Your task to perform on an android device: check android version Image 0: 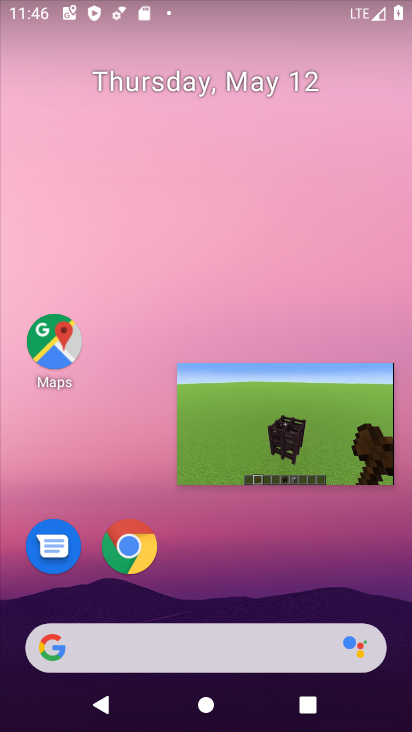
Step 0: click (359, 389)
Your task to perform on an android device: check android version Image 1: 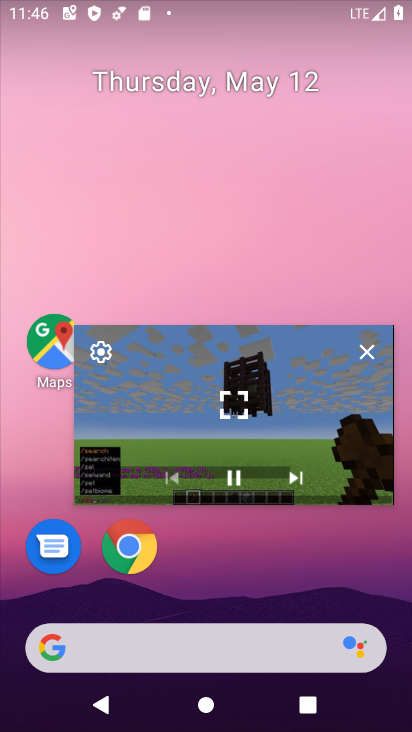
Step 1: click (369, 351)
Your task to perform on an android device: check android version Image 2: 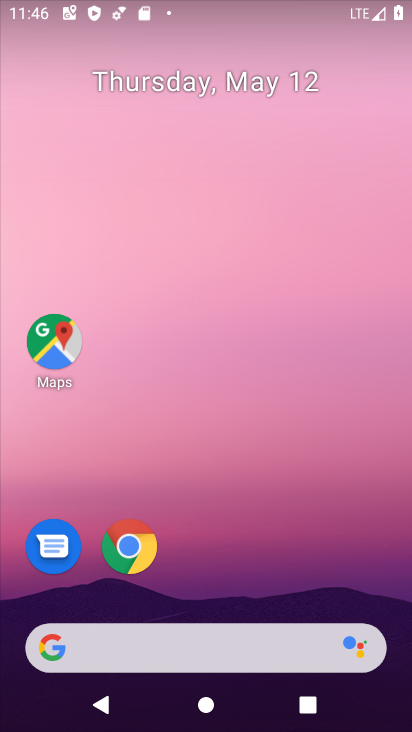
Step 2: drag from (246, 575) to (246, 98)
Your task to perform on an android device: check android version Image 3: 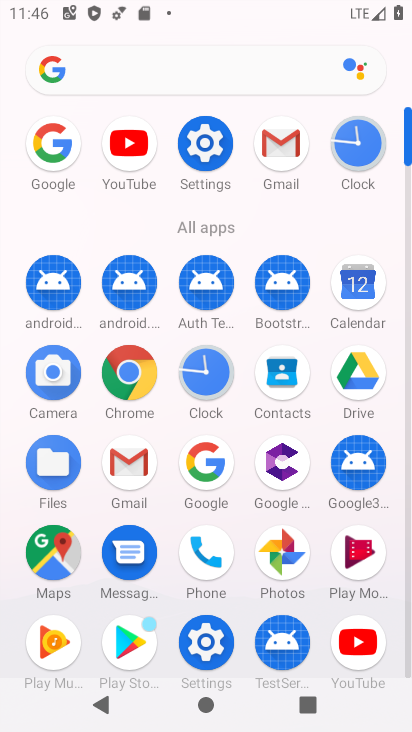
Step 3: click (208, 145)
Your task to perform on an android device: check android version Image 4: 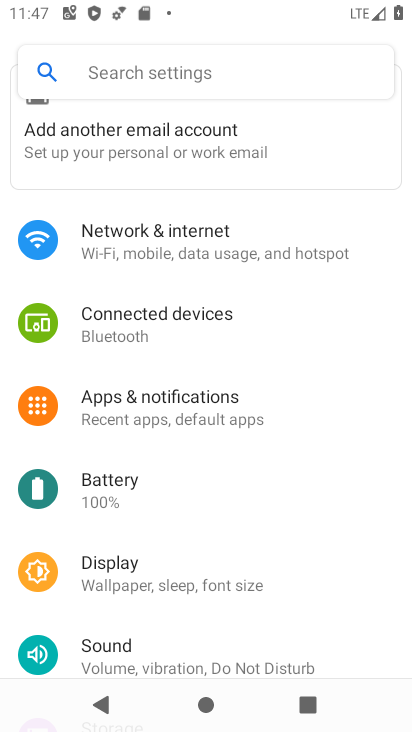
Step 4: drag from (209, 472) to (238, 123)
Your task to perform on an android device: check android version Image 5: 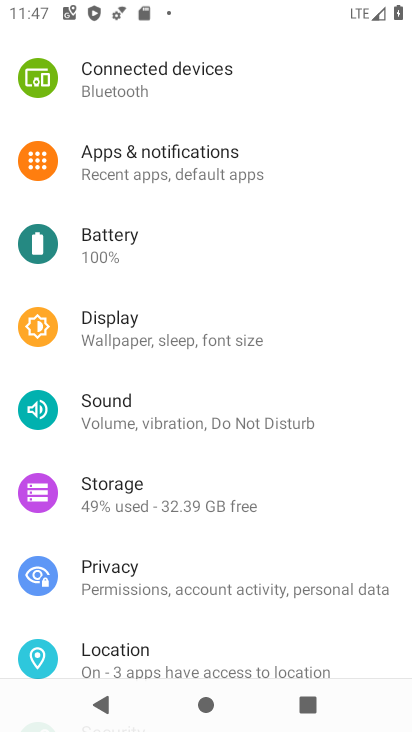
Step 5: drag from (289, 571) to (294, 165)
Your task to perform on an android device: check android version Image 6: 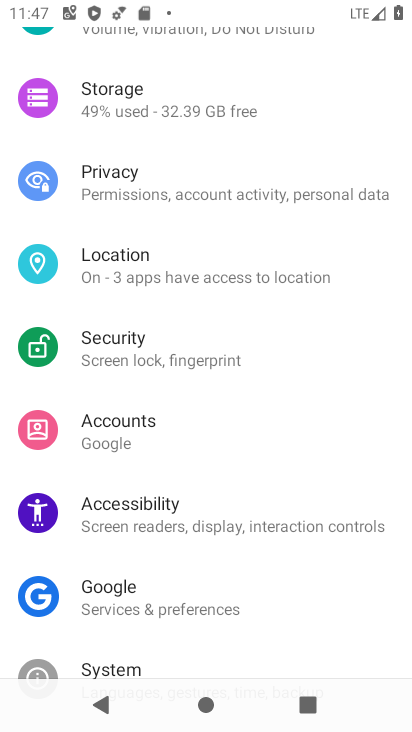
Step 6: drag from (295, 531) to (291, 216)
Your task to perform on an android device: check android version Image 7: 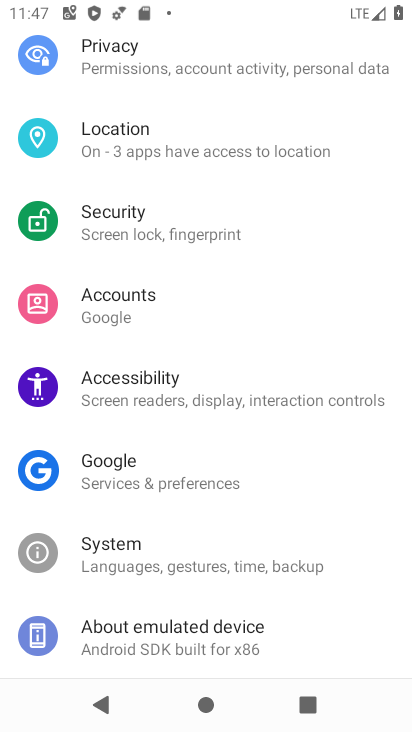
Step 7: click (187, 640)
Your task to perform on an android device: check android version Image 8: 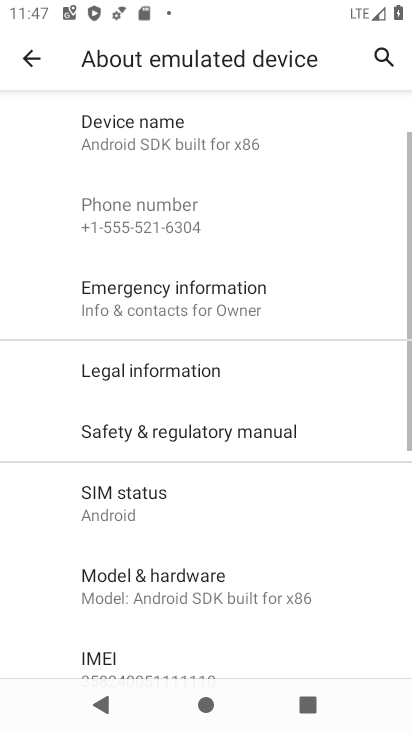
Step 8: drag from (246, 509) to (275, 206)
Your task to perform on an android device: check android version Image 9: 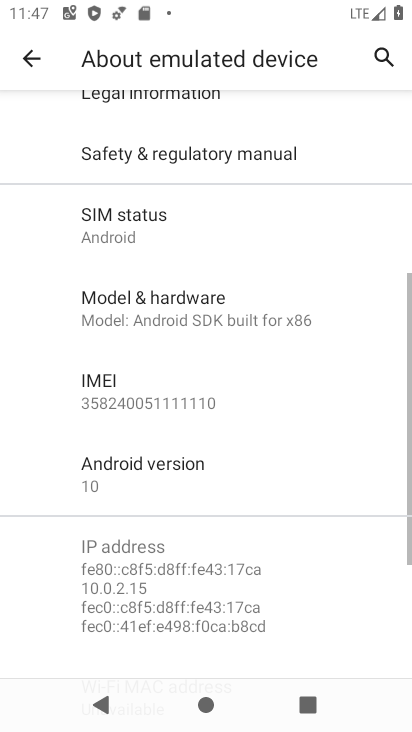
Step 9: click (181, 469)
Your task to perform on an android device: check android version Image 10: 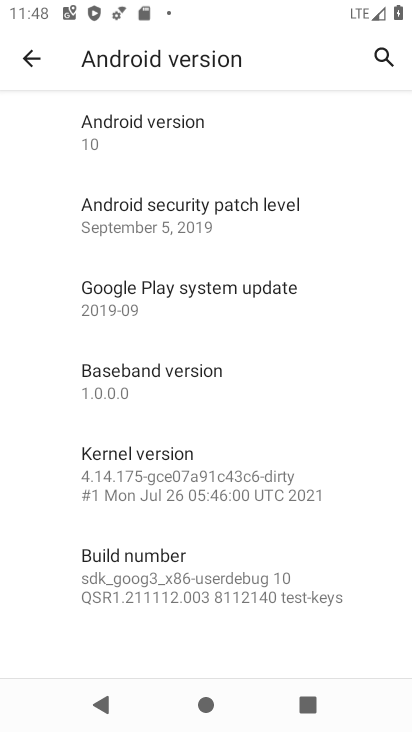
Step 10: task complete